Your task to perform on an android device: change the upload size in google photos Image 0: 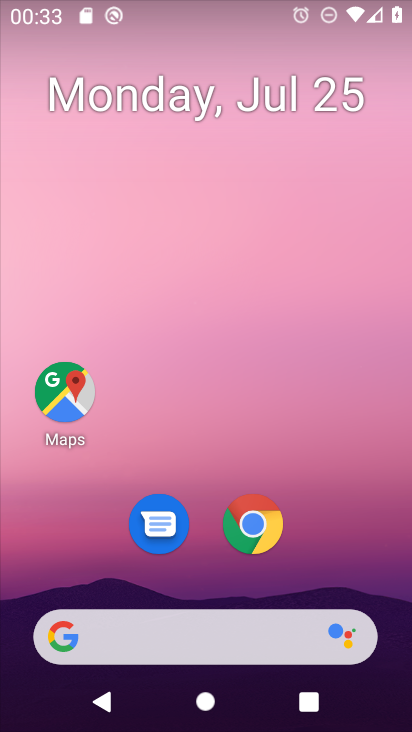
Step 0: drag from (188, 647) to (328, 113)
Your task to perform on an android device: change the upload size in google photos Image 1: 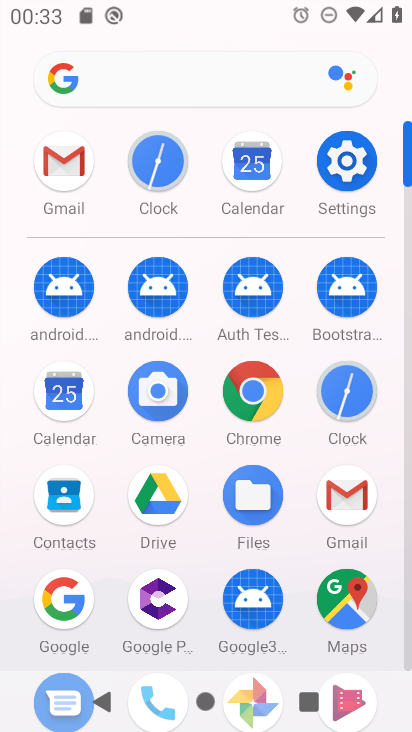
Step 1: drag from (221, 609) to (341, 167)
Your task to perform on an android device: change the upload size in google photos Image 2: 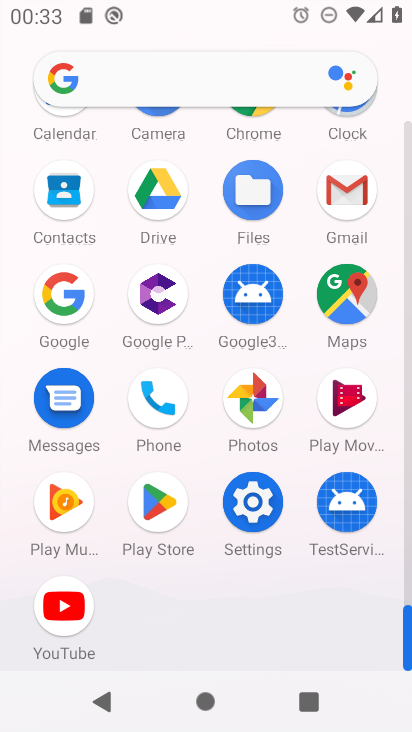
Step 2: click (250, 407)
Your task to perform on an android device: change the upload size in google photos Image 3: 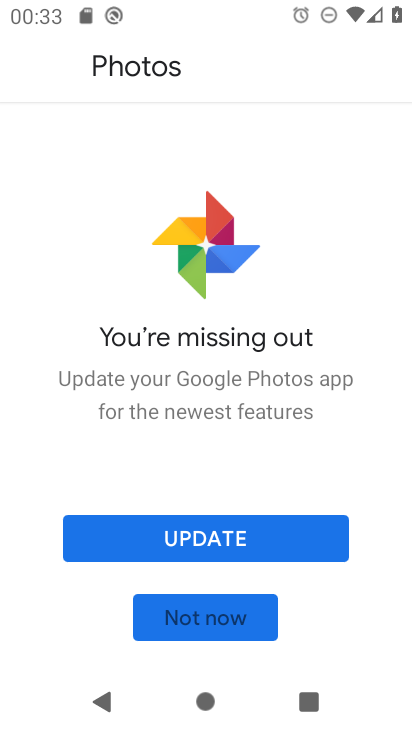
Step 3: click (219, 537)
Your task to perform on an android device: change the upload size in google photos Image 4: 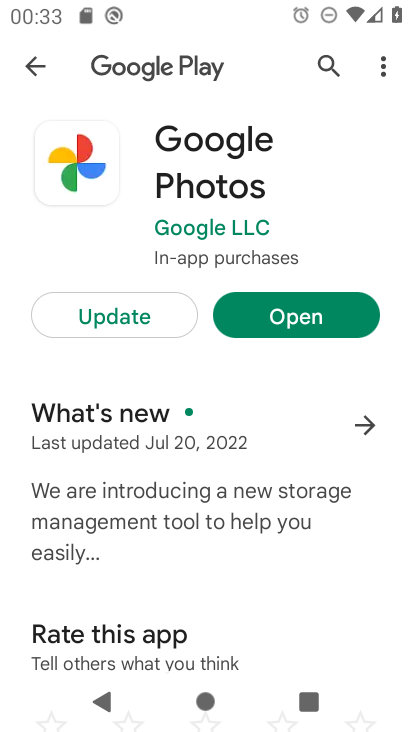
Step 4: click (130, 338)
Your task to perform on an android device: change the upload size in google photos Image 5: 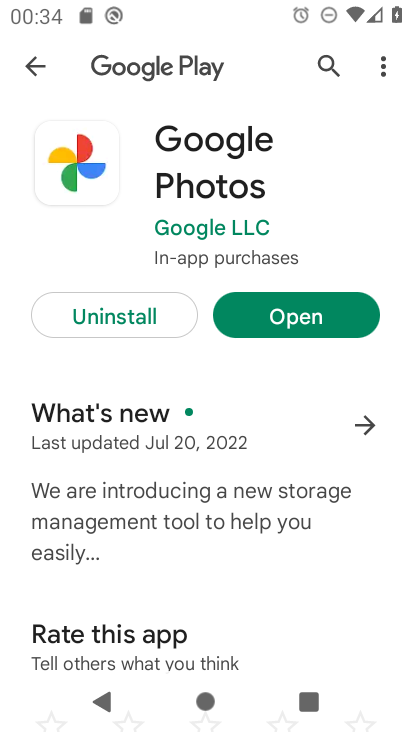
Step 5: click (291, 313)
Your task to perform on an android device: change the upload size in google photos Image 6: 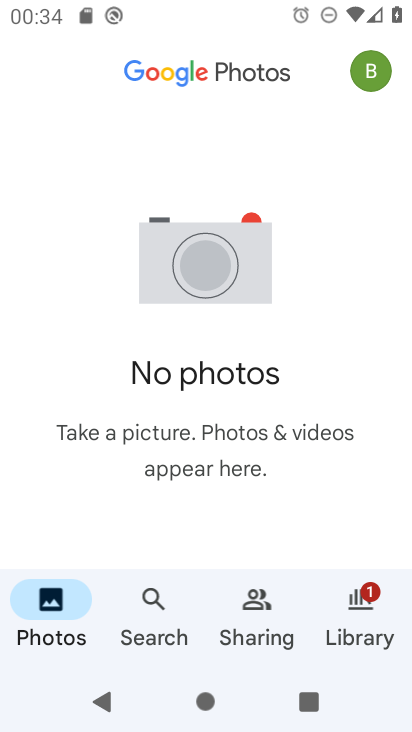
Step 6: click (362, 70)
Your task to perform on an android device: change the upload size in google photos Image 7: 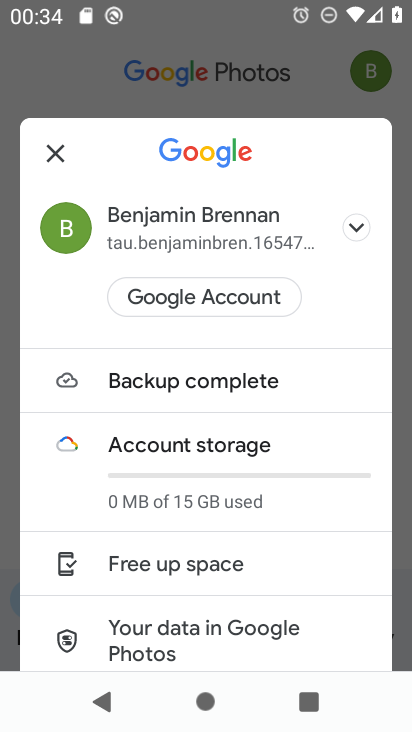
Step 7: drag from (252, 599) to (348, 153)
Your task to perform on an android device: change the upload size in google photos Image 8: 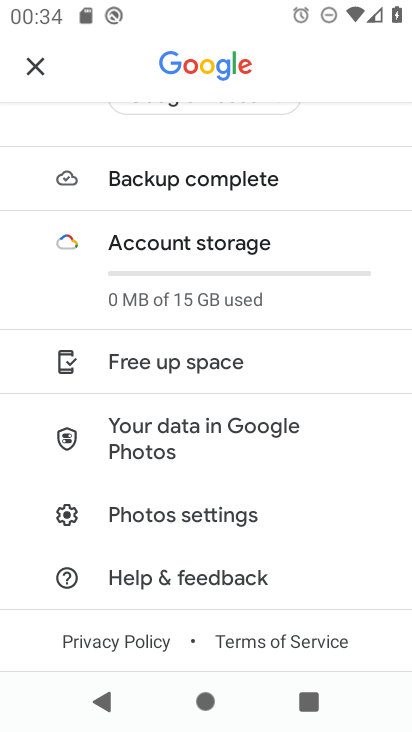
Step 8: click (222, 516)
Your task to perform on an android device: change the upload size in google photos Image 9: 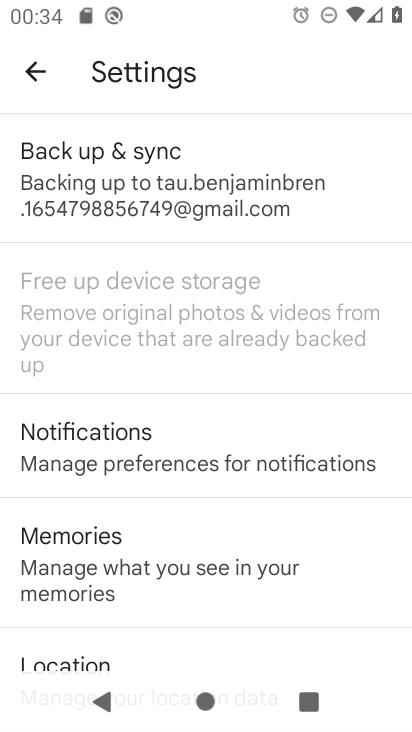
Step 9: click (243, 224)
Your task to perform on an android device: change the upload size in google photos Image 10: 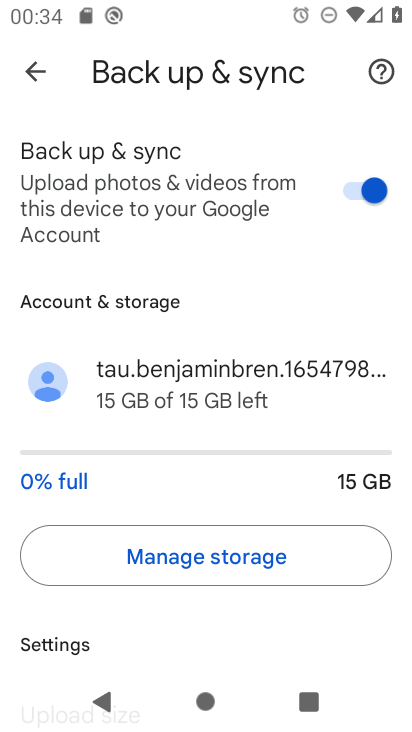
Step 10: drag from (190, 650) to (316, 118)
Your task to perform on an android device: change the upload size in google photos Image 11: 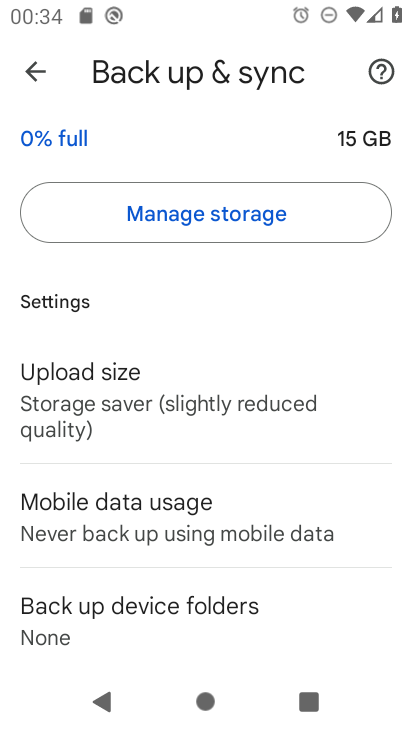
Step 11: click (159, 384)
Your task to perform on an android device: change the upload size in google photos Image 12: 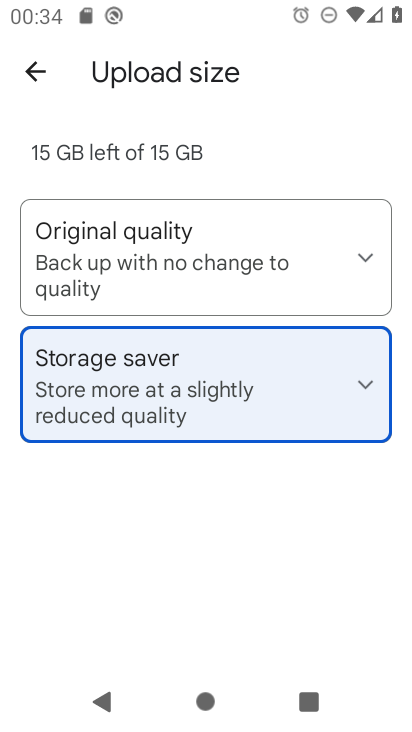
Step 12: click (372, 268)
Your task to perform on an android device: change the upload size in google photos Image 13: 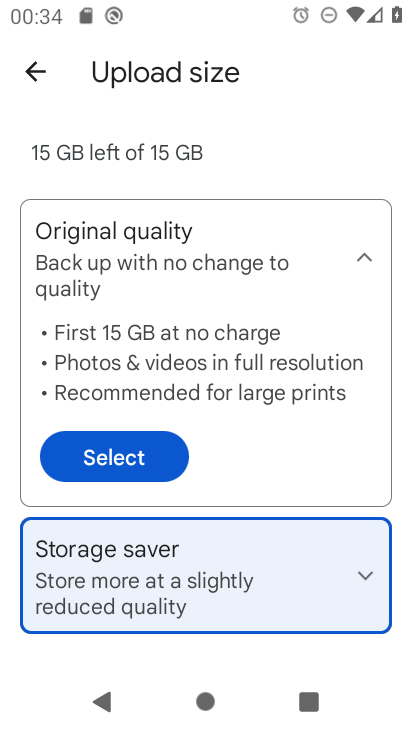
Step 13: click (104, 460)
Your task to perform on an android device: change the upload size in google photos Image 14: 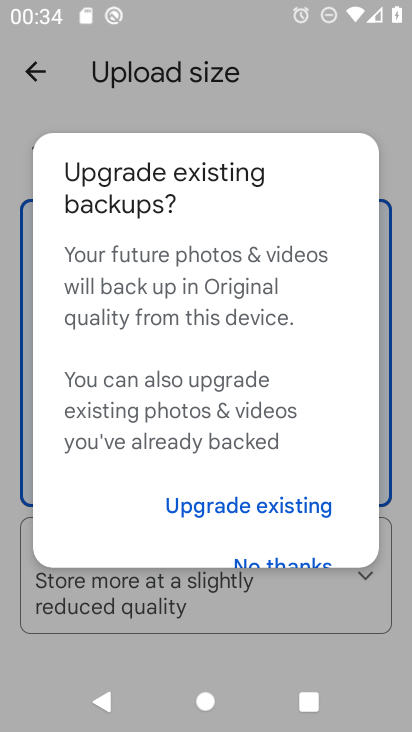
Step 14: drag from (227, 521) to (309, 225)
Your task to perform on an android device: change the upload size in google photos Image 15: 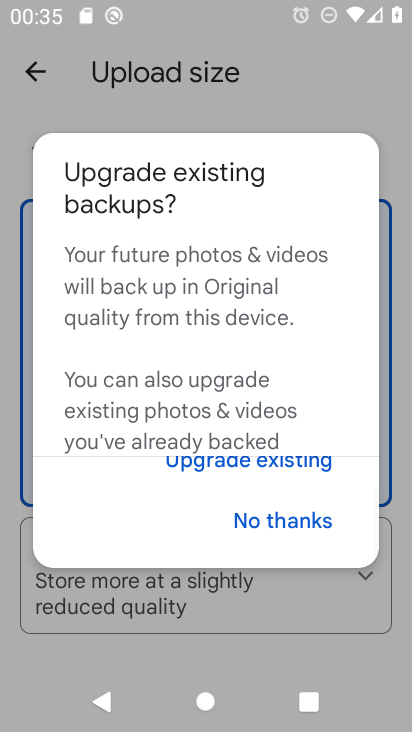
Step 15: click (272, 520)
Your task to perform on an android device: change the upload size in google photos Image 16: 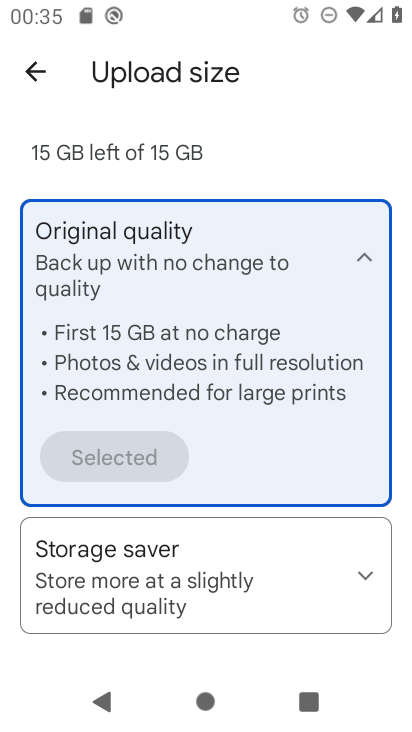
Step 16: task complete